Your task to perform on an android device: find photos in the google photos app Image 0: 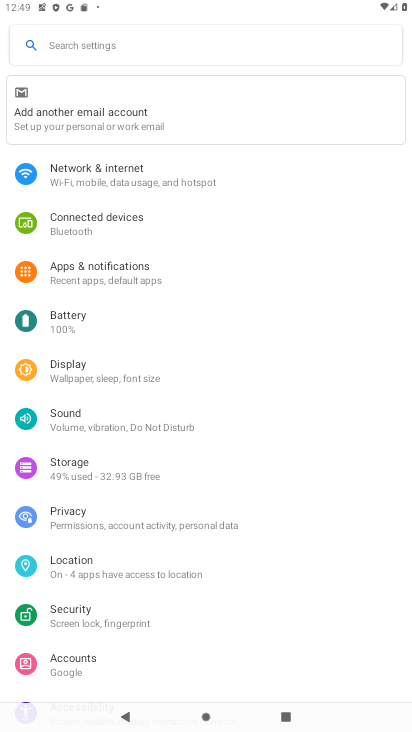
Step 0: press home button
Your task to perform on an android device: find photos in the google photos app Image 1: 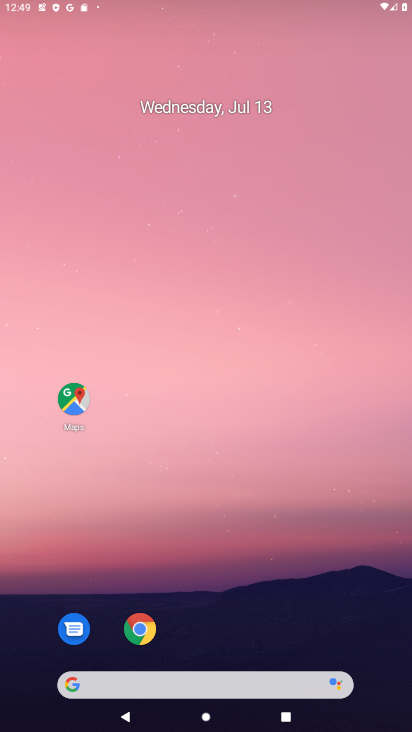
Step 1: drag from (277, 615) to (224, 198)
Your task to perform on an android device: find photos in the google photos app Image 2: 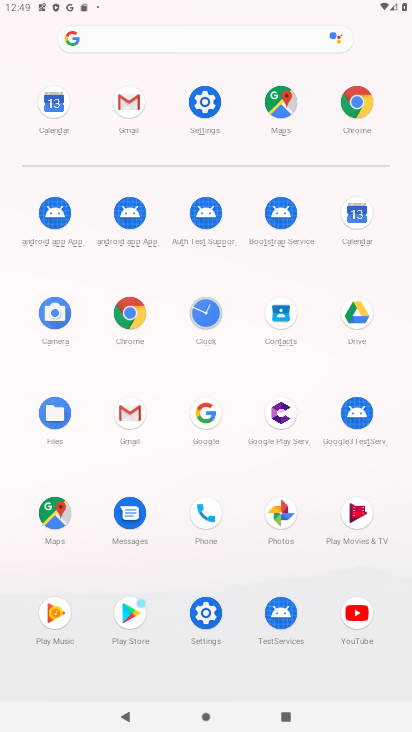
Step 2: click (277, 508)
Your task to perform on an android device: find photos in the google photos app Image 3: 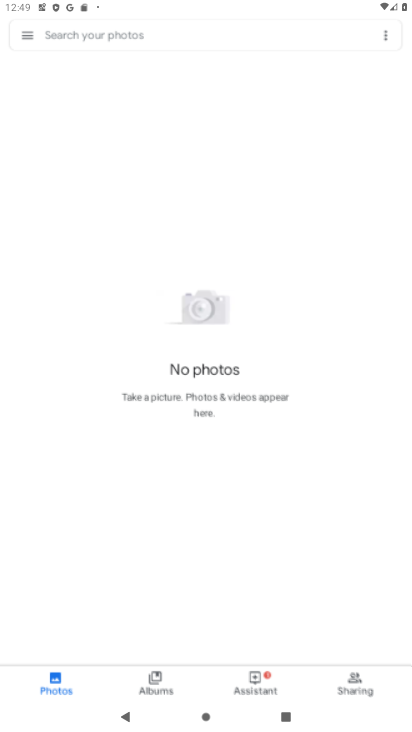
Step 3: click (145, 671)
Your task to perform on an android device: find photos in the google photos app Image 4: 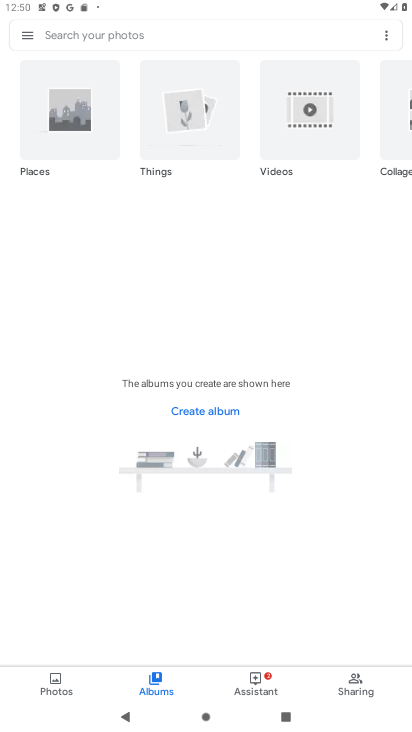
Step 4: task complete